Your task to perform on an android device: Go to wifi settings Image 0: 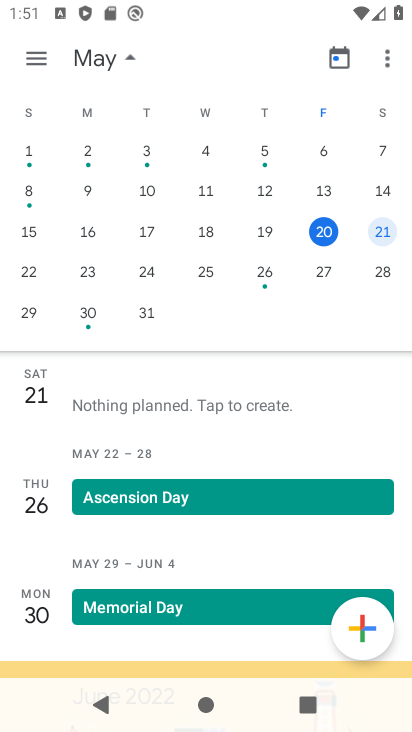
Step 0: press home button
Your task to perform on an android device: Go to wifi settings Image 1: 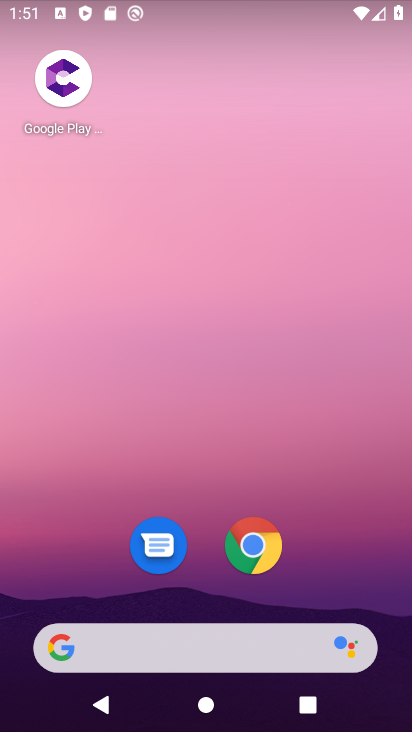
Step 1: drag from (288, 578) to (339, 7)
Your task to perform on an android device: Go to wifi settings Image 2: 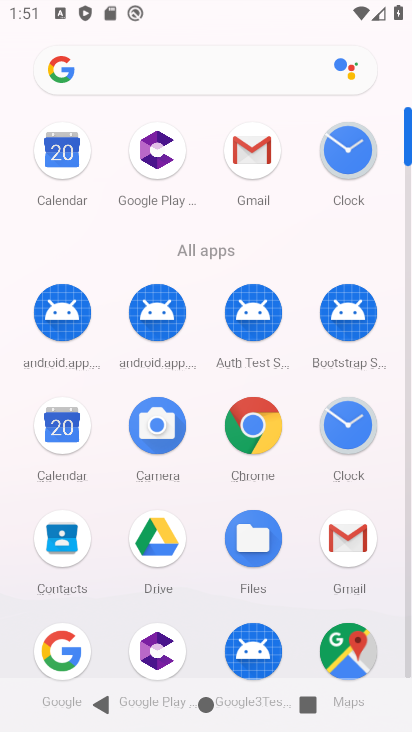
Step 2: drag from (293, 558) to (308, 113)
Your task to perform on an android device: Go to wifi settings Image 3: 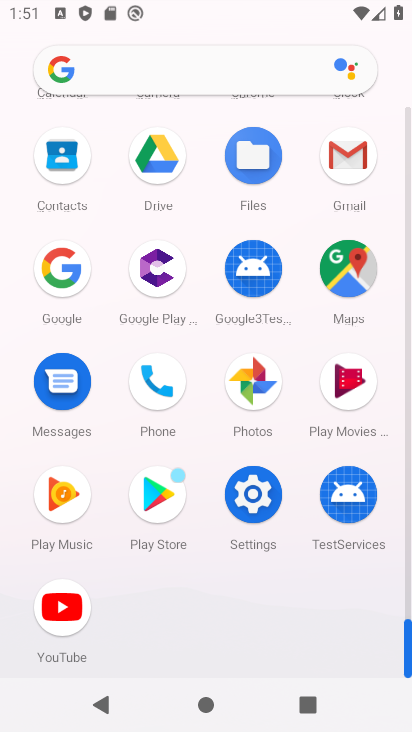
Step 3: click (257, 508)
Your task to perform on an android device: Go to wifi settings Image 4: 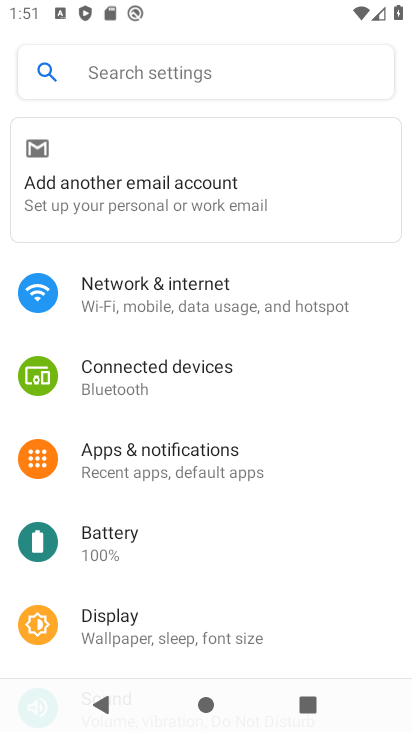
Step 4: click (164, 312)
Your task to perform on an android device: Go to wifi settings Image 5: 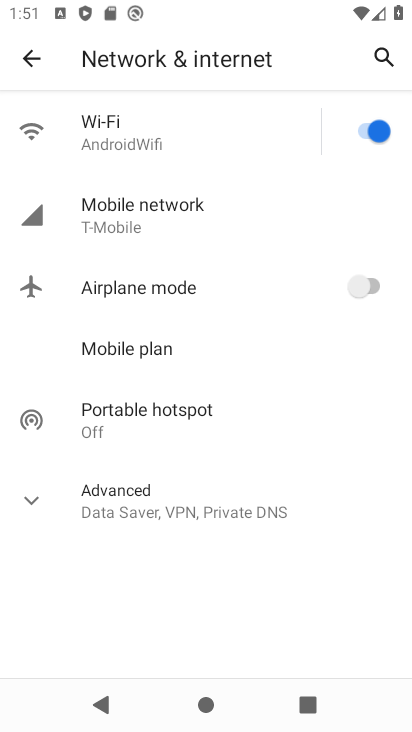
Step 5: click (195, 129)
Your task to perform on an android device: Go to wifi settings Image 6: 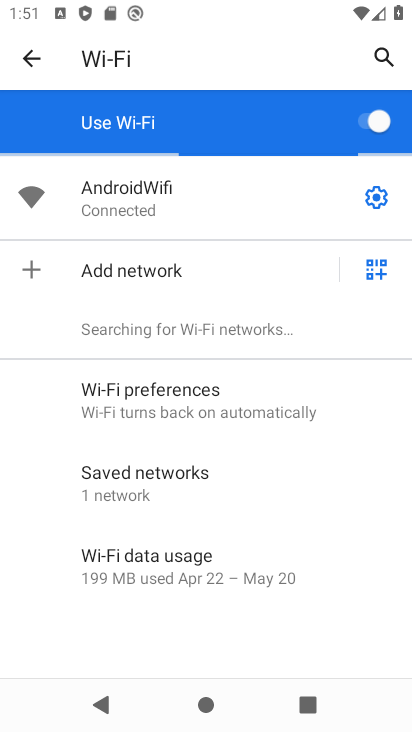
Step 6: task complete